Your task to perform on an android device: Clear the cart on newegg. Search for "razer blade" on newegg, select the first entry, and add it to the cart. Image 0: 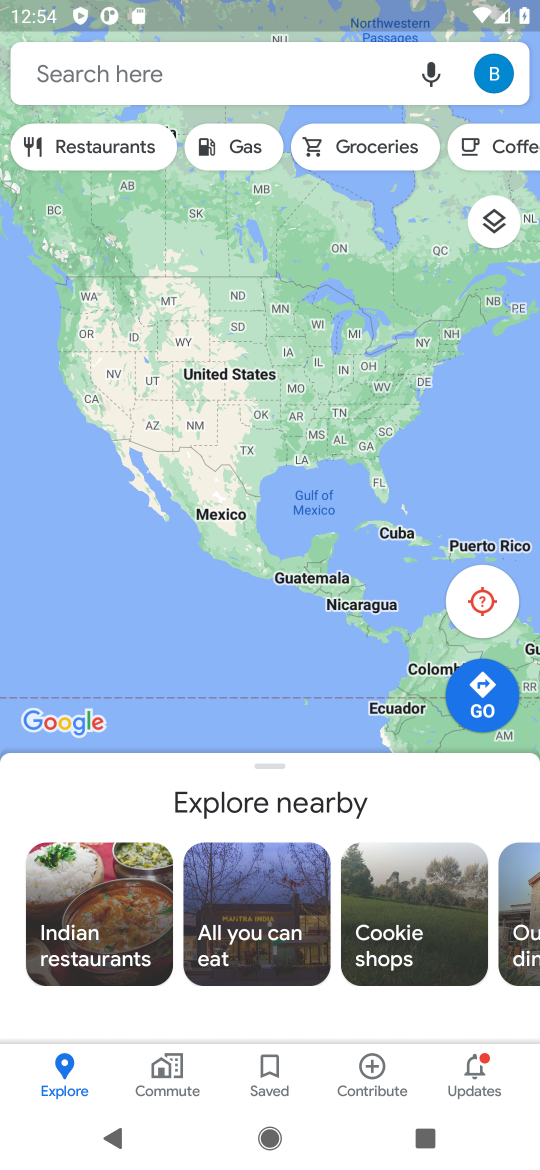
Step 0: press home button
Your task to perform on an android device: Clear the cart on newegg. Search for "razer blade" on newegg, select the first entry, and add it to the cart. Image 1: 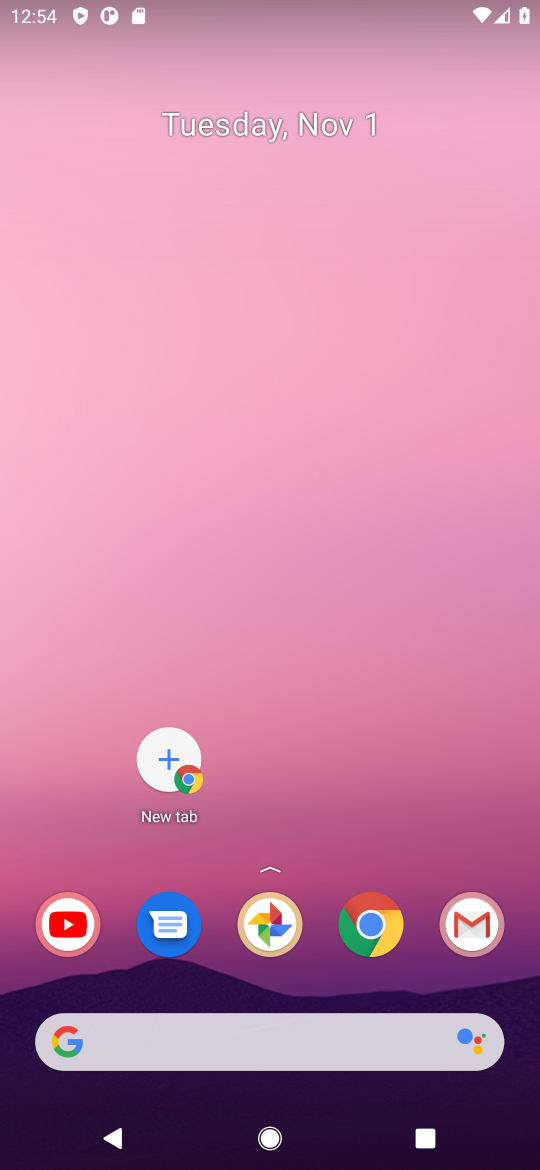
Step 1: click (376, 932)
Your task to perform on an android device: Clear the cart on newegg. Search for "razer blade" on newegg, select the first entry, and add it to the cart. Image 2: 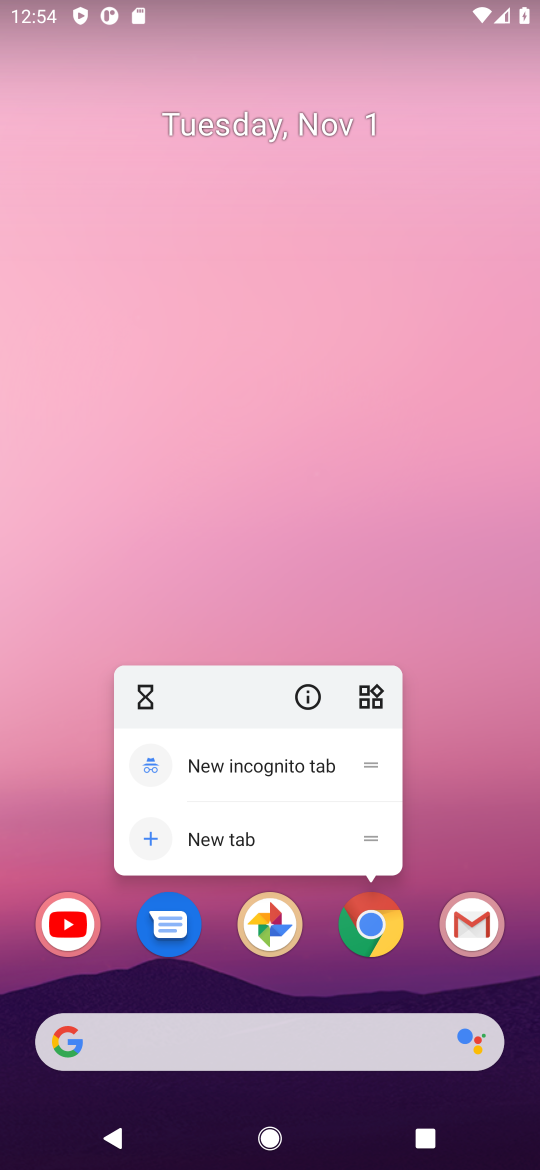
Step 2: click (379, 929)
Your task to perform on an android device: Clear the cart on newegg. Search for "razer blade" on newegg, select the first entry, and add it to the cart. Image 3: 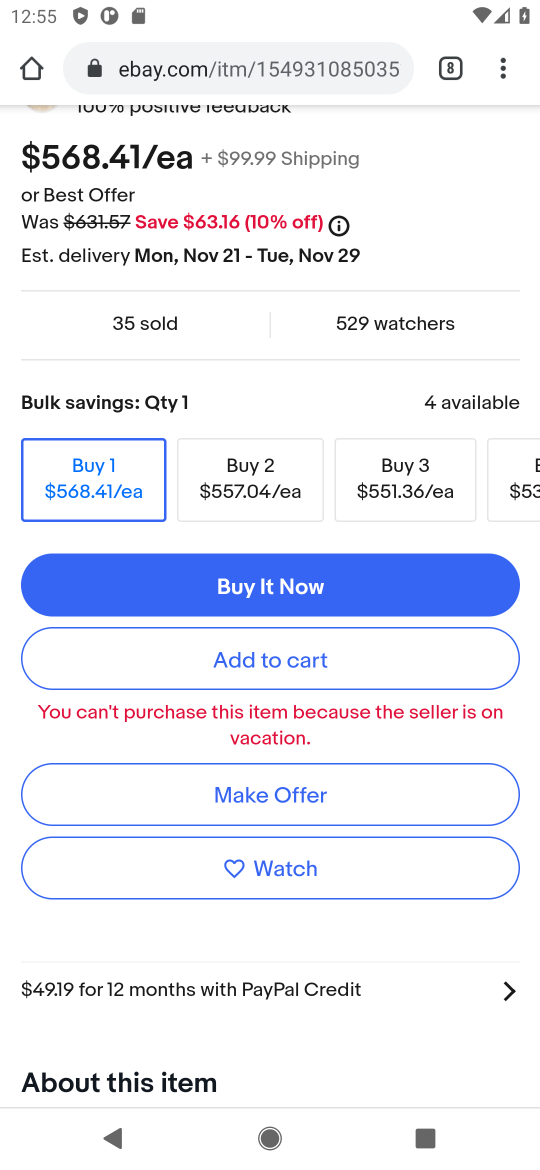
Step 3: click (200, 63)
Your task to perform on an android device: Clear the cart on newegg. Search for "razer blade" on newegg, select the first entry, and add it to the cart. Image 4: 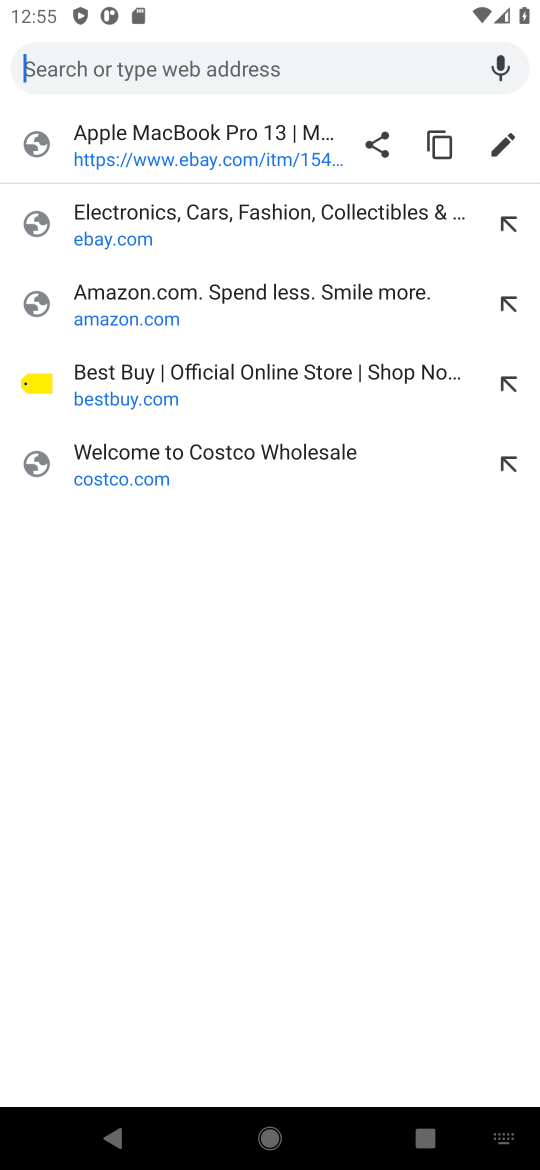
Step 4: type "newegg"
Your task to perform on an android device: Clear the cart on newegg. Search for "razer blade" on newegg, select the first entry, and add it to the cart. Image 5: 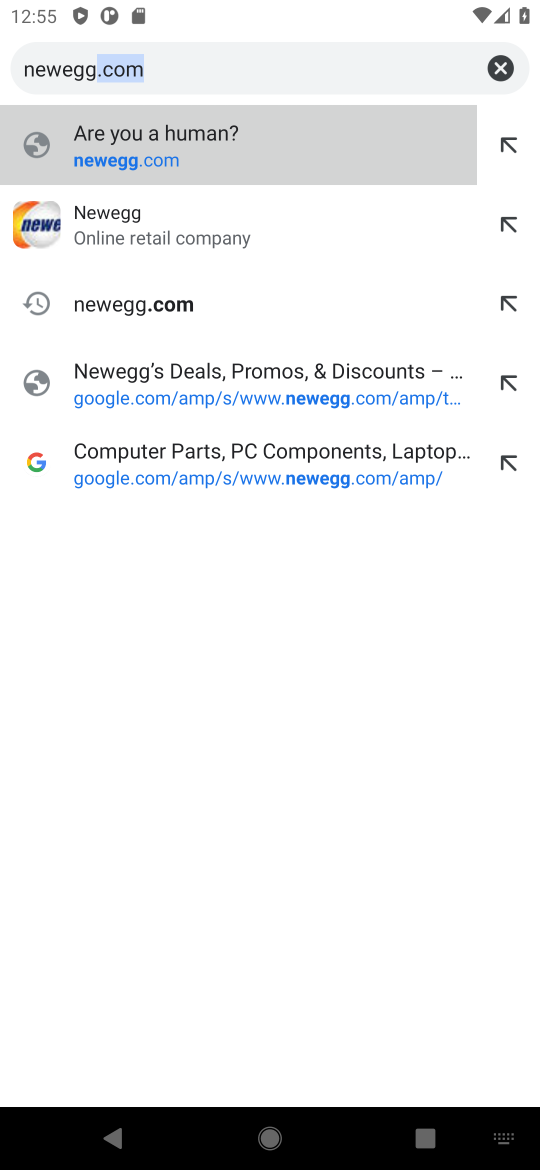
Step 5: click (131, 204)
Your task to perform on an android device: Clear the cart on newegg. Search for "razer blade" on newegg, select the first entry, and add it to the cart. Image 6: 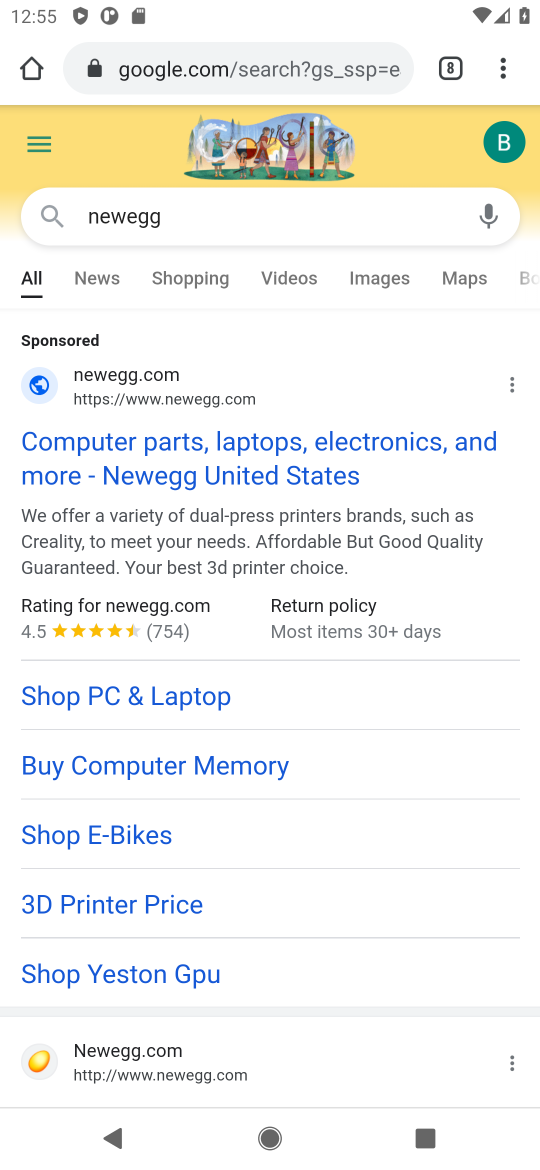
Step 6: drag from (262, 870) to (356, 303)
Your task to perform on an android device: Clear the cart on newegg. Search for "razer blade" on newegg, select the first entry, and add it to the cart. Image 7: 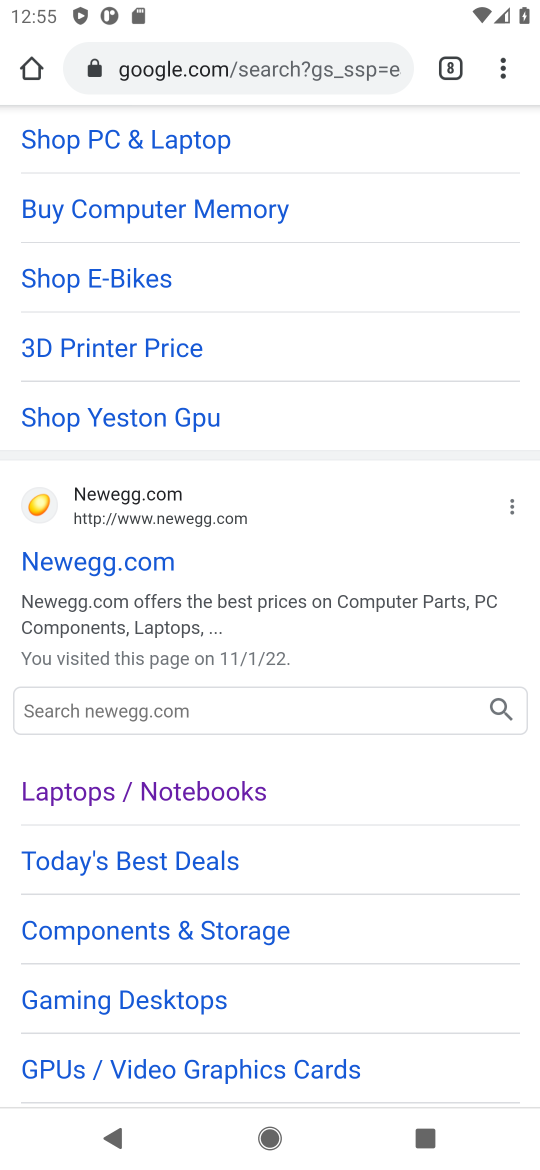
Step 7: click (89, 563)
Your task to perform on an android device: Clear the cart on newegg. Search for "razer blade" on newegg, select the first entry, and add it to the cart. Image 8: 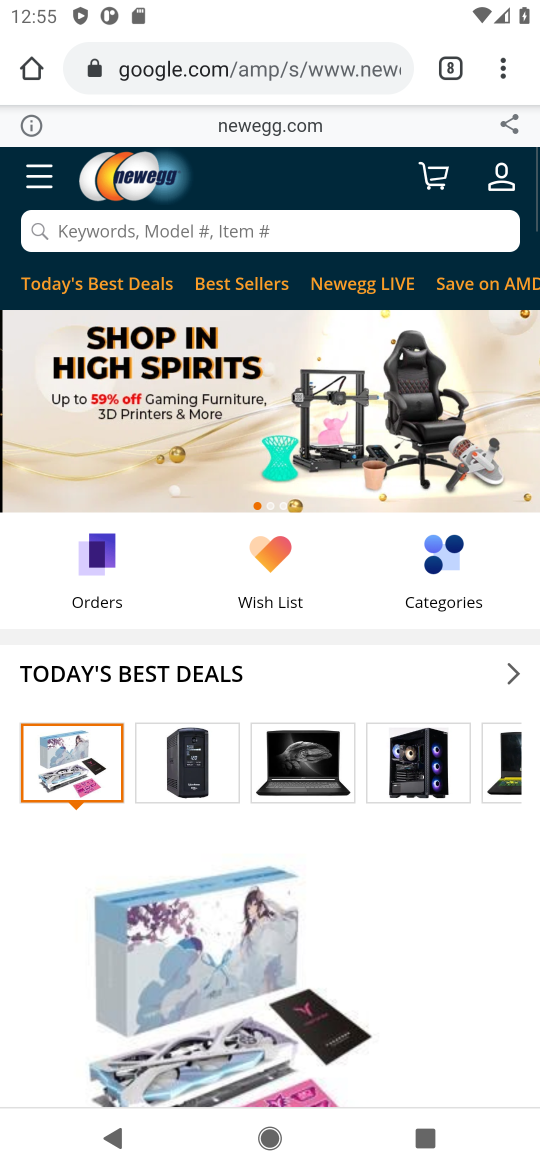
Step 8: click (133, 240)
Your task to perform on an android device: Clear the cart on newegg. Search for "razer blade" on newegg, select the first entry, and add it to the cart. Image 9: 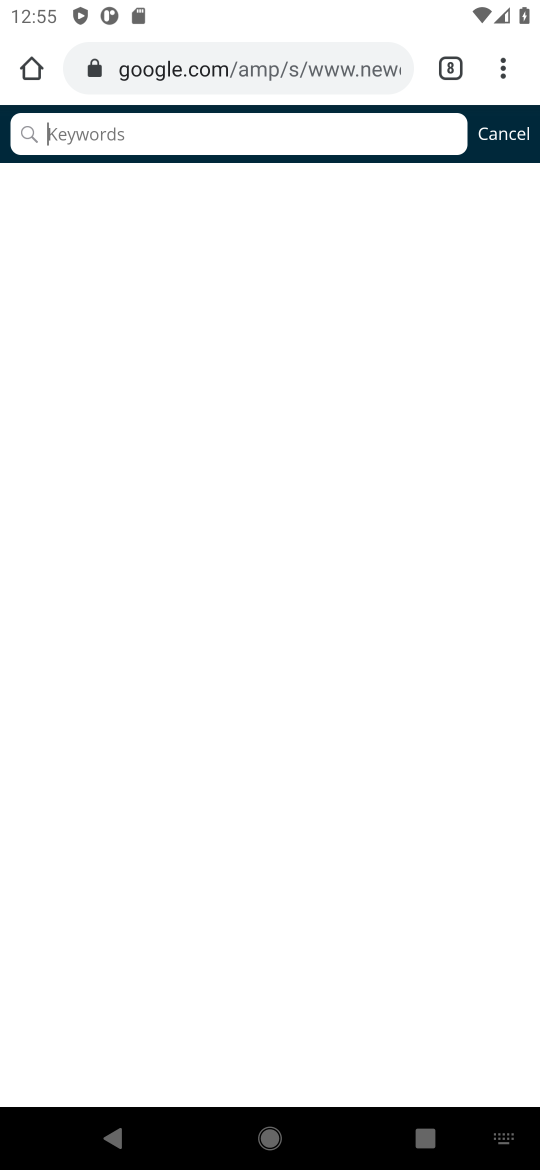
Step 9: type "razer blade"
Your task to perform on an android device: Clear the cart on newegg. Search for "razer blade" on newegg, select the first entry, and add it to the cart. Image 10: 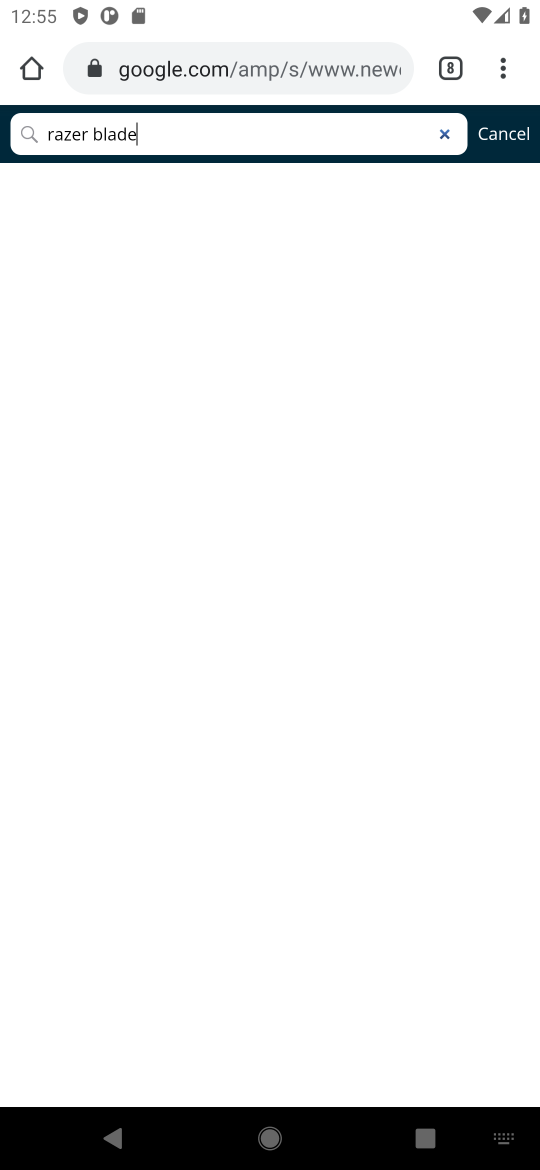
Step 10: type ""
Your task to perform on an android device: Clear the cart on newegg. Search for "razer blade" on newegg, select the first entry, and add it to the cart. Image 11: 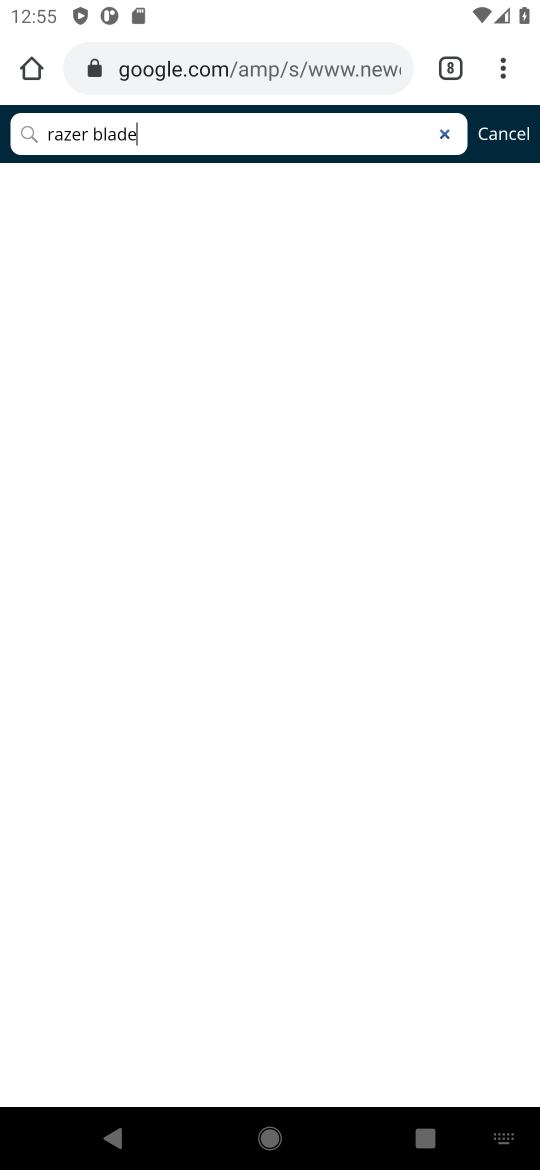
Step 11: type ""
Your task to perform on an android device: Clear the cart on newegg. Search for "razer blade" on newegg, select the first entry, and add it to the cart. Image 12: 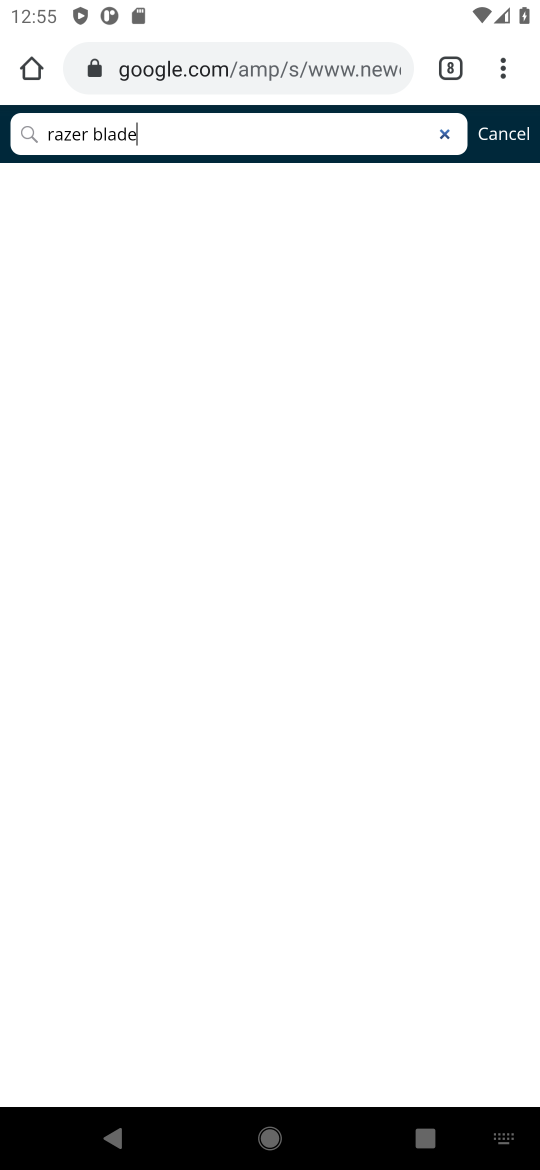
Step 12: click (440, 130)
Your task to perform on an android device: Clear the cart on newegg. Search for "razer blade" on newegg, select the first entry, and add it to the cart. Image 13: 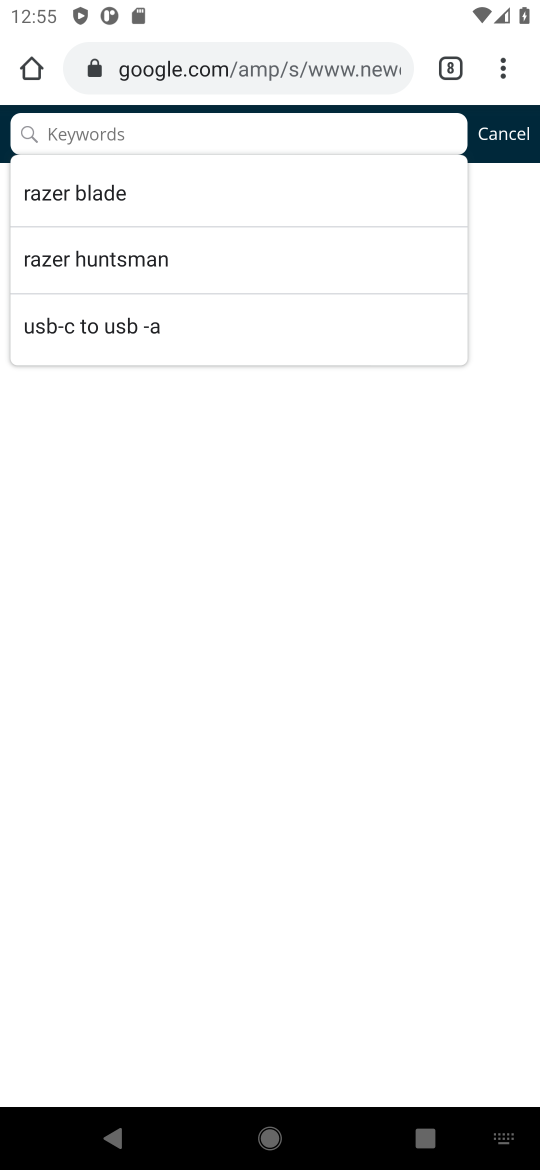
Step 13: click (70, 197)
Your task to perform on an android device: Clear the cart on newegg. Search for "razer blade" on newegg, select the first entry, and add it to the cart. Image 14: 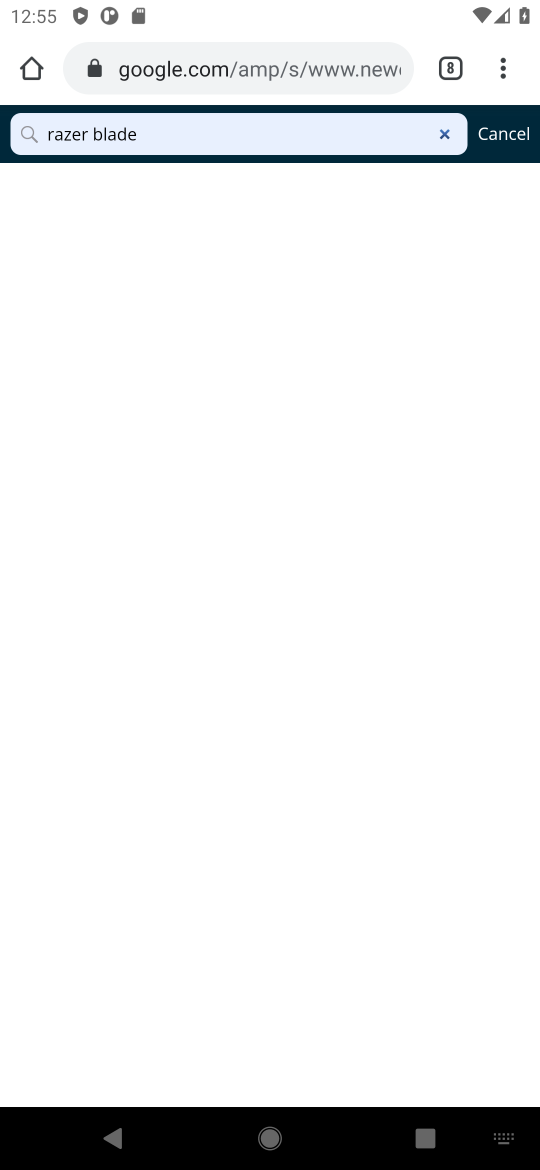
Step 14: click (448, 139)
Your task to perform on an android device: Clear the cart on newegg. Search for "razer blade" on newegg, select the first entry, and add it to the cart. Image 15: 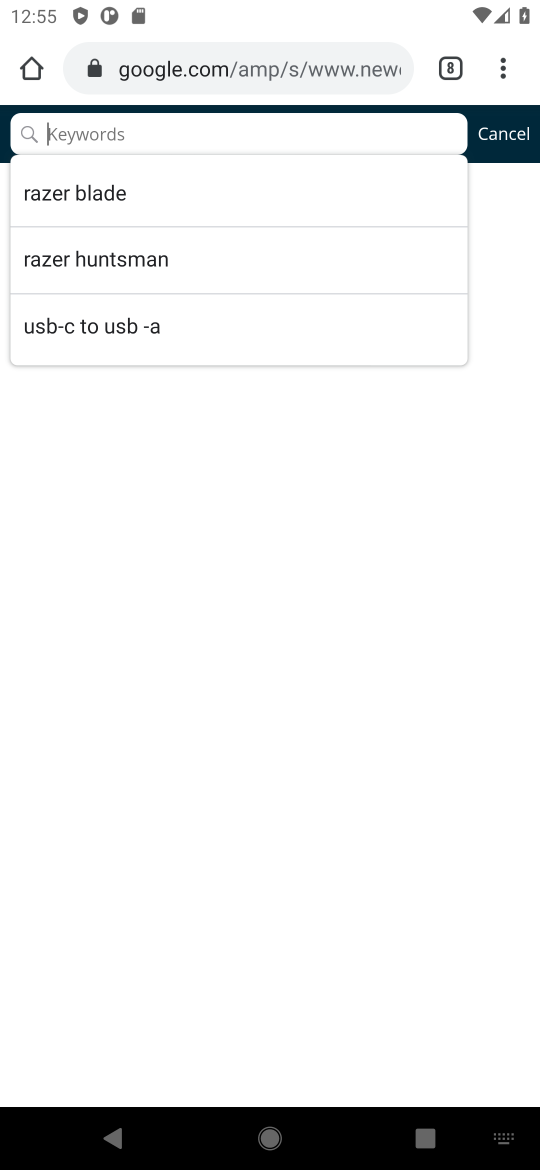
Step 15: press back button
Your task to perform on an android device: Clear the cart on newegg. Search for "razer blade" on newegg, select the first entry, and add it to the cart. Image 16: 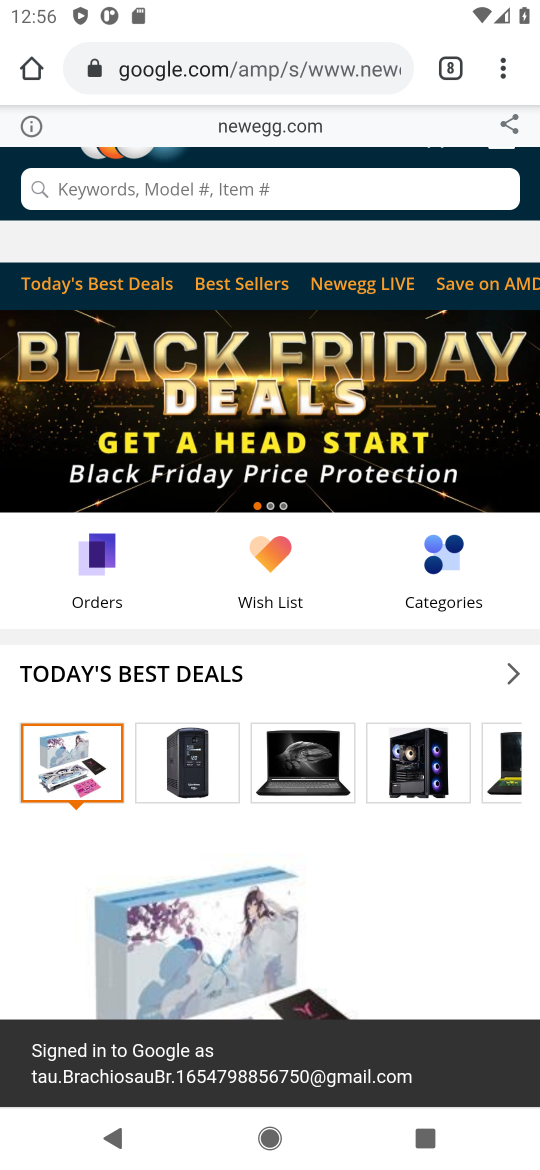
Step 16: drag from (171, 643) to (187, 523)
Your task to perform on an android device: Clear the cart on newegg. Search for "razer blade" on newegg, select the first entry, and add it to the cart. Image 17: 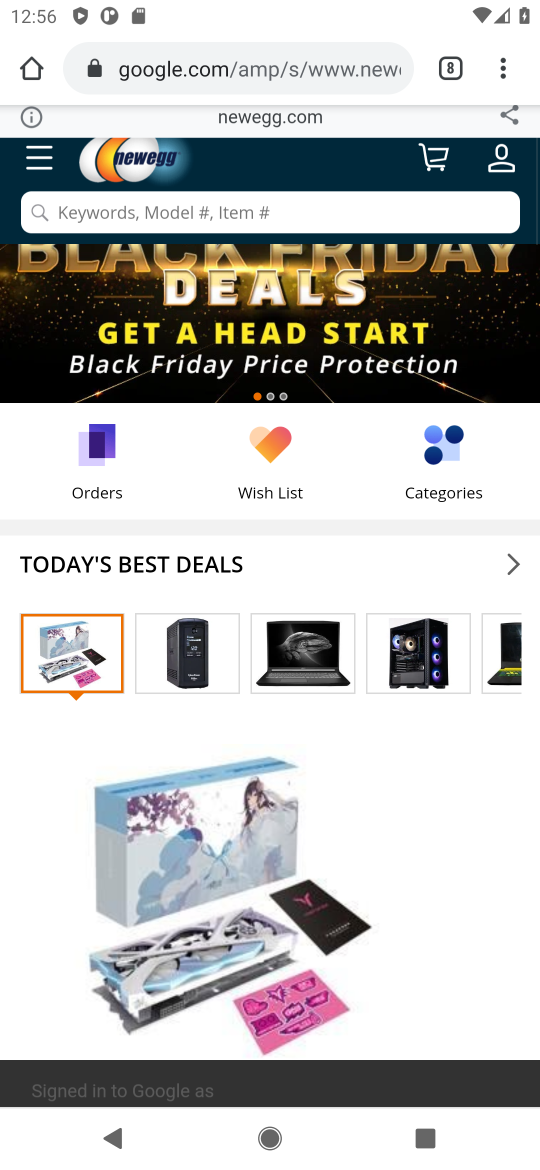
Step 17: click (176, 221)
Your task to perform on an android device: Clear the cart on newegg. Search for "razer blade" on newegg, select the first entry, and add it to the cart. Image 18: 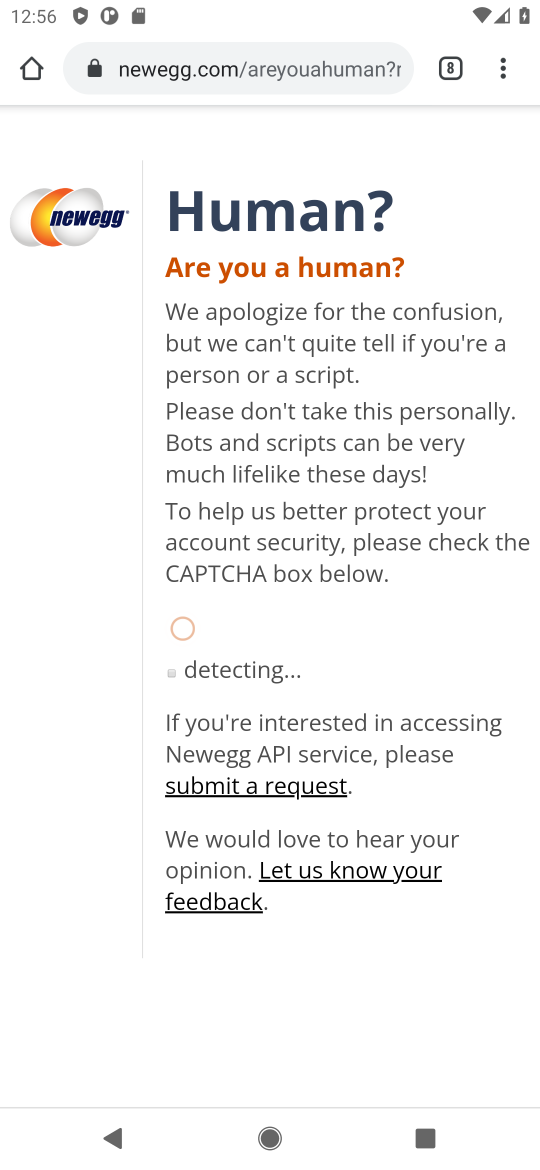
Step 18: press back button
Your task to perform on an android device: Clear the cart on newegg. Search for "razer blade" on newegg, select the first entry, and add it to the cart. Image 19: 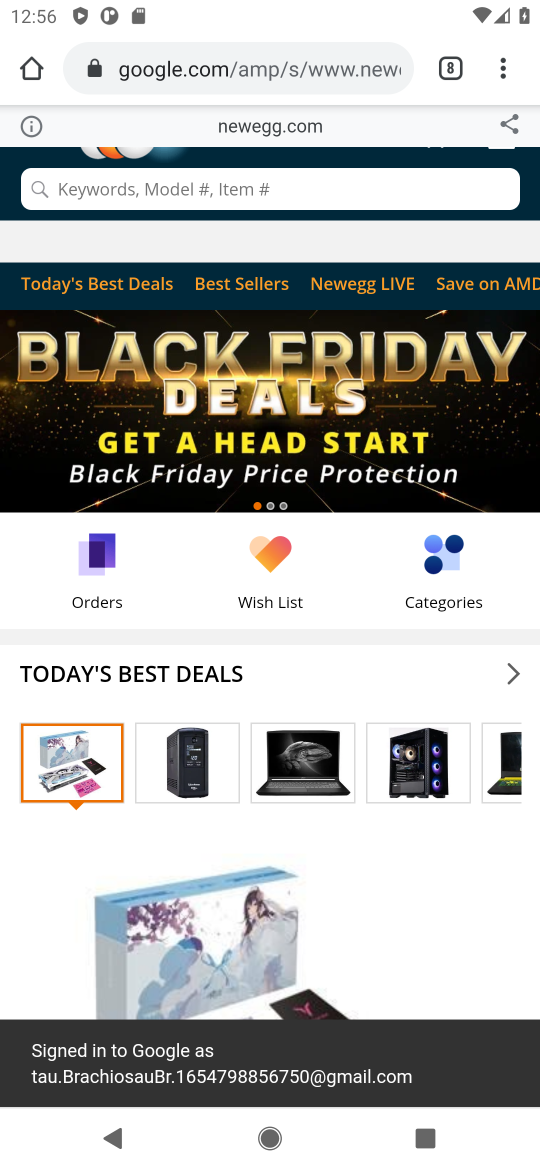
Step 19: drag from (295, 798) to (290, 320)
Your task to perform on an android device: Clear the cart on newegg. Search for "razer blade" on newegg, select the first entry, and add it to the cart. Image 20: 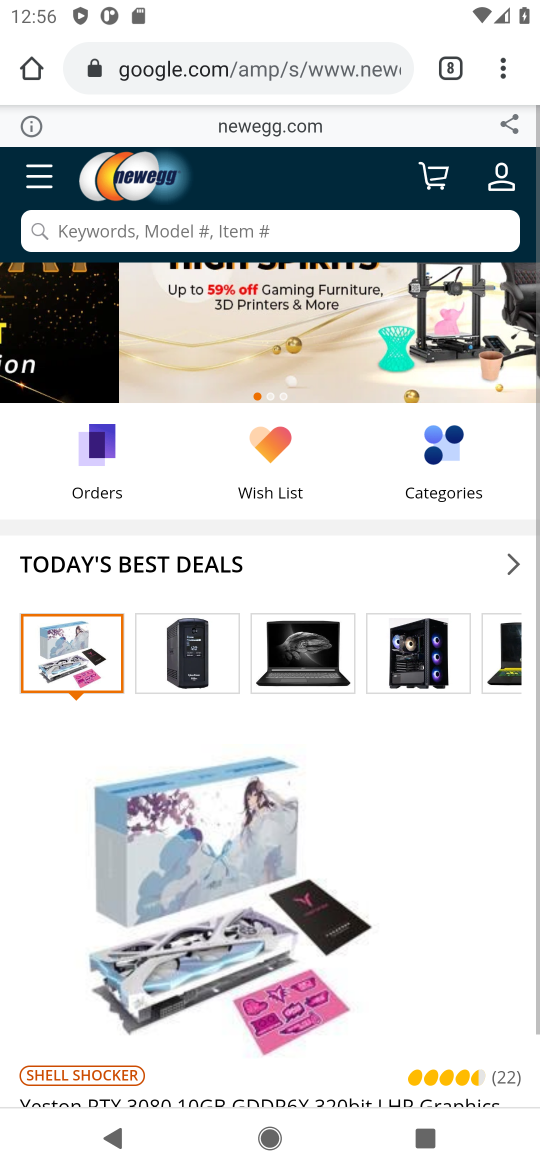
Step 20: drag from (291, 896) to (296, 606)
Your task to perform on an android device: Clear the cart on newegg. Search for "razer blade" on newegg, select the first entry, and add it to the cart. Image 21: 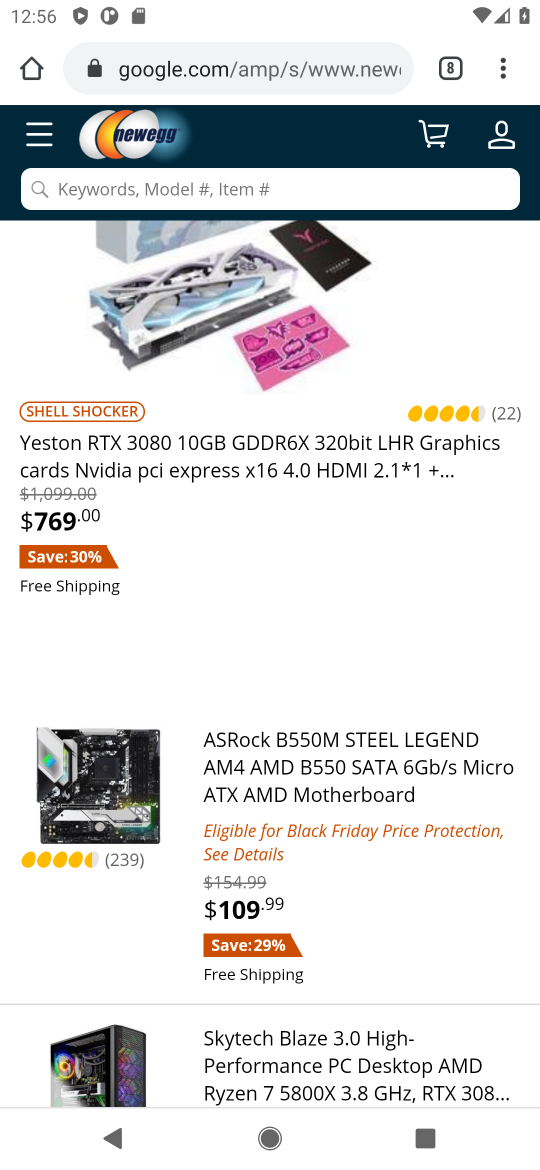
Step 21: drag from (243, 964) to (240, 581)
Your task to perform on an android device: Clear the cart on newegg. Search for "razer blade" on newegg, select the first entry, and add it to the cart. Image 22: 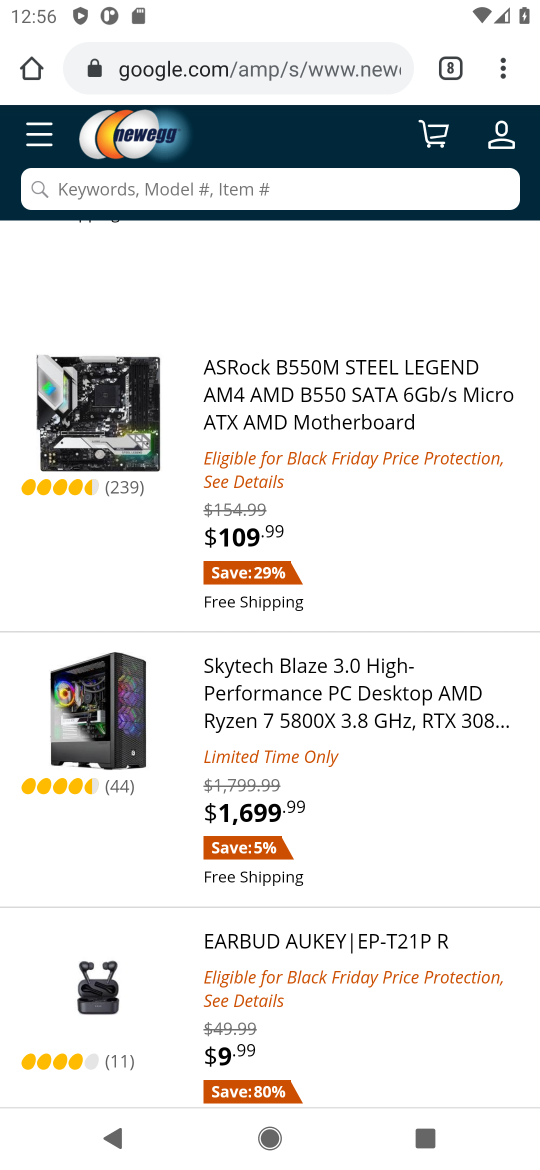
Step 22: drag from (225, 1001) to (361, 261)
Your task to perform on an android device: Clear the cart on newegg. Search for "razer blade" on newegg, select the first entry, and add it to the cart. Image 23: 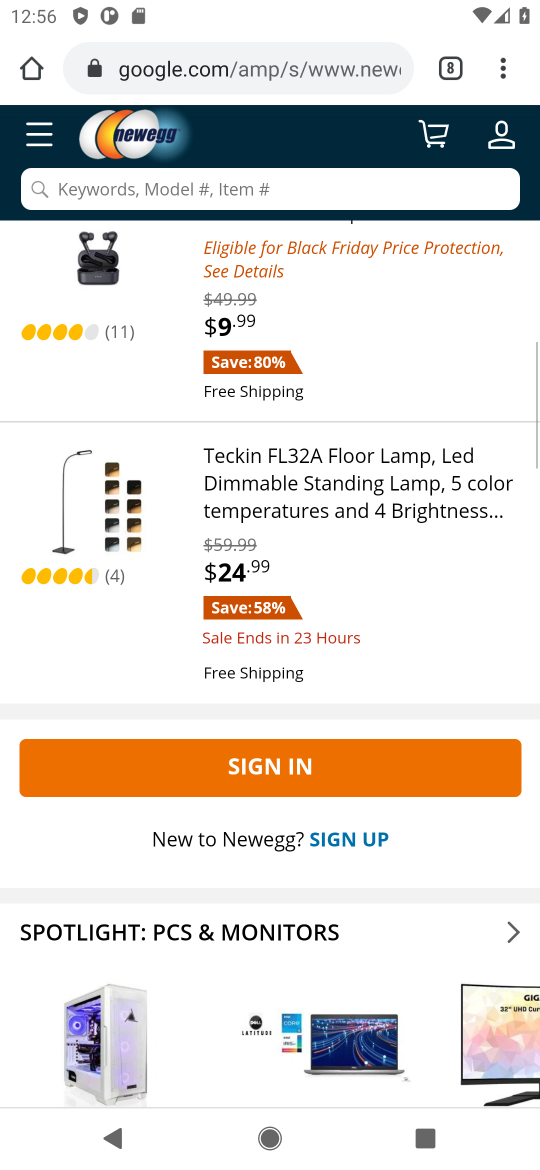
Step 23: drag from (253, 1019) to (276, 470)
Your task to perform on an android device: Clear the cart on newegg. Search for "razer blade" on newegg, select the first entry, and add it to the cart. Image 24: 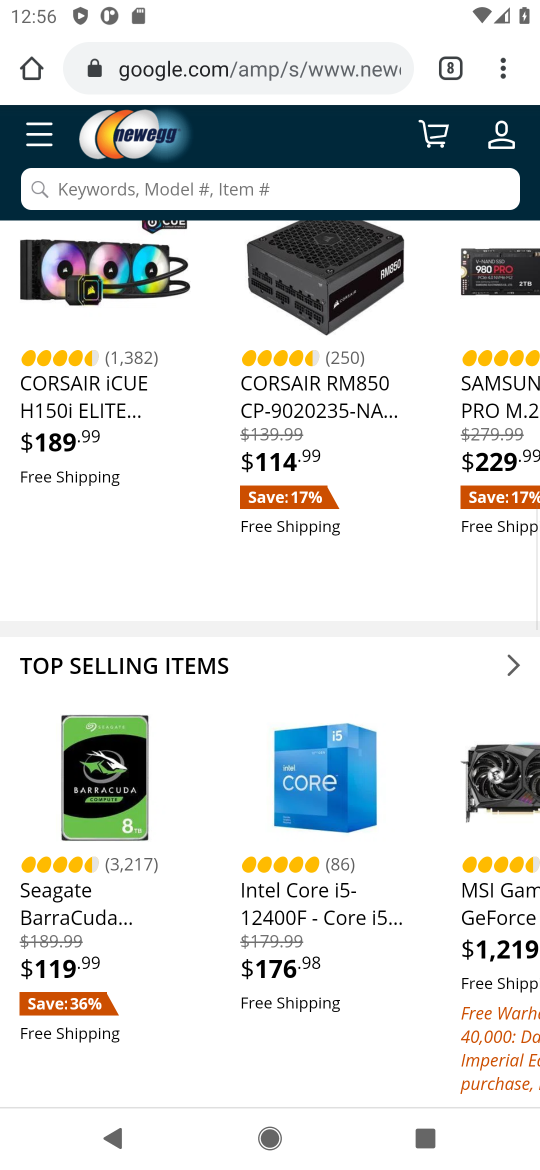
Step 24: drag from (217, 982) to (217, 486)
Your task to perform on an android device: Clear the cart on newegg. Search for "razer blade" on newegg, select the first entry, and add it to the cart. Image 25: 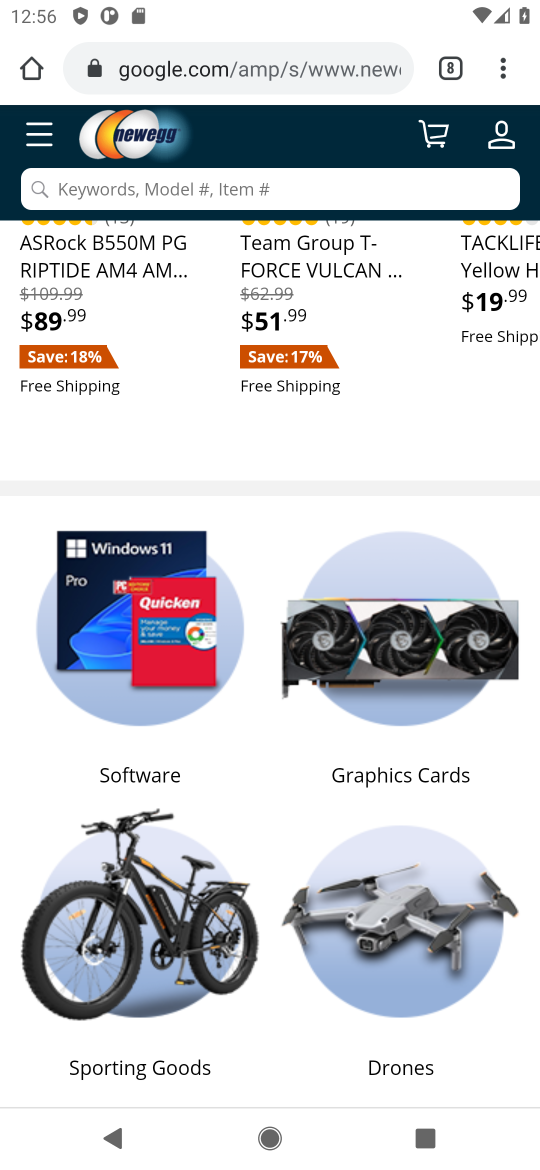
Step 25: drag from (241, 822) to (269, 472)
Your task to perform on an android device: Clear the cart on newegg. Search for "razer blade" on newegg, select the first entry, and add it to the cart. Image 26: 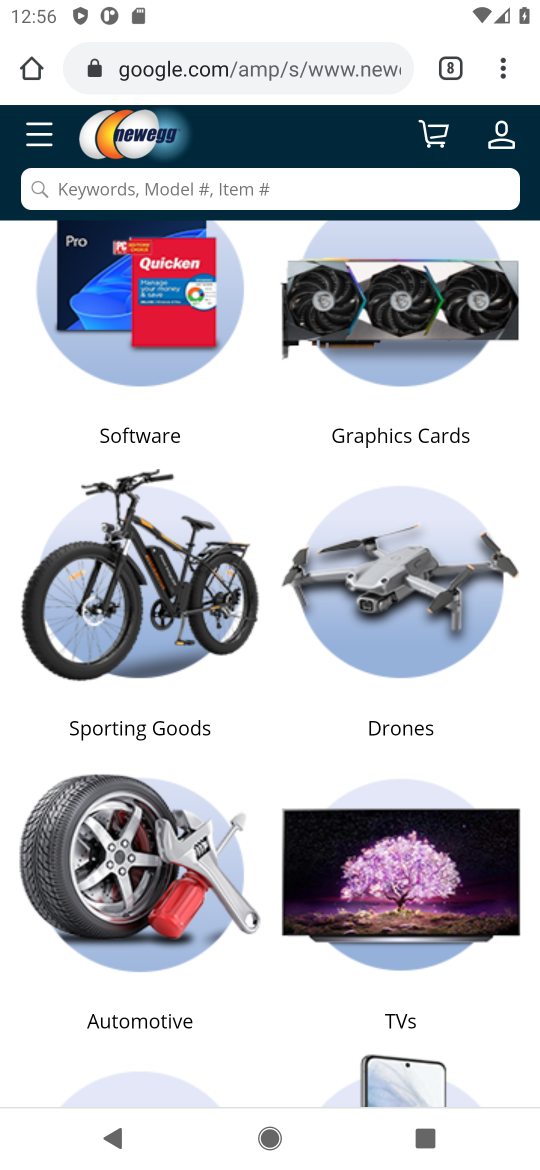
Step 26: click (294, 989)
Your task to perform on an android device: Clear the cart on newegg. Search for "razer blade" on newegg, select the first entry, and add it to the cart. Image 27: 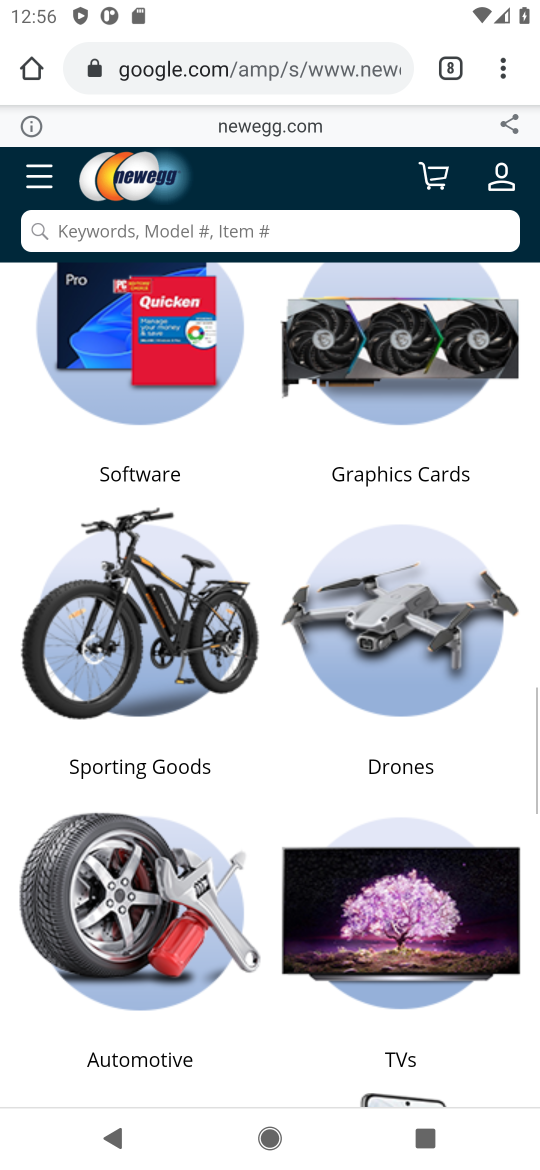
Step 27: drag from (365, 400) to (434, 1055)
Your task to perform on an android device: Clear the cart on newegg. Search for "razer blade" on newegg, select the first entry, and add it to the cart. Image 28: 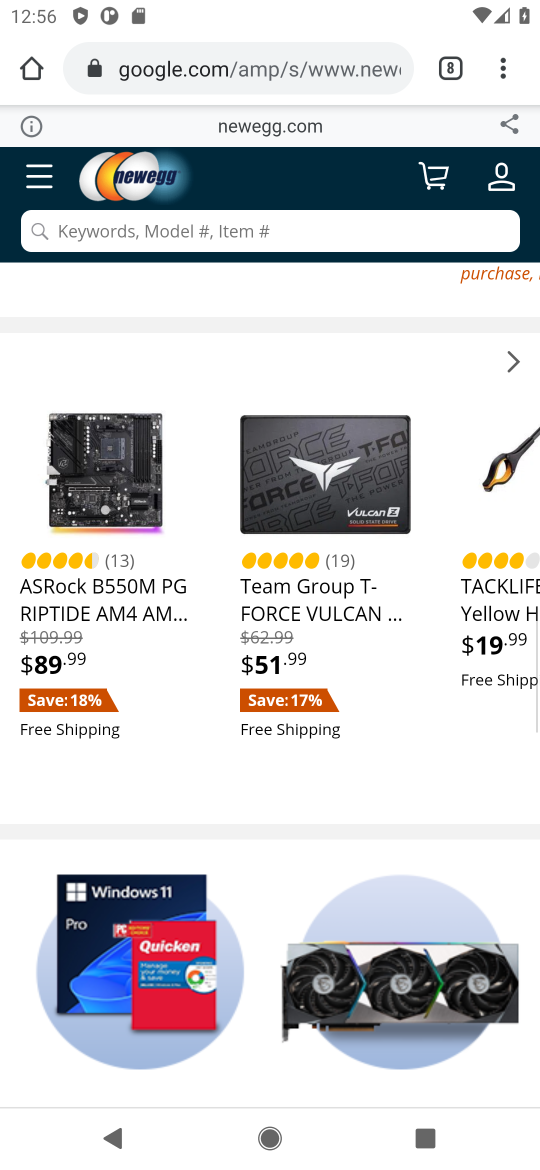
Step 28: drag from (349, 409) to (342, 929)
Your task to perform on an android device: Clear the cart on newegg. Search for "razer blade" on newegg, select the first entry, and add it to the cart. Image 29: 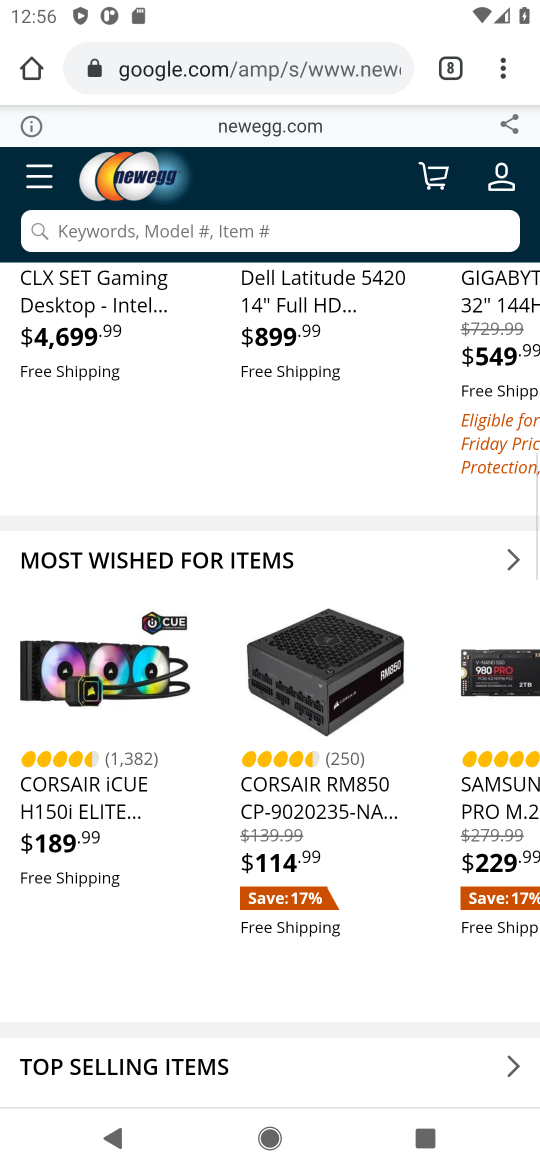
Step 29: drag from (247, 531) to (179, 897)
Your task to perform on an android device: Clear the cart on newegg. Search for "razer blade" on newegg, select the first entry, and add it to the cart. Image 30: 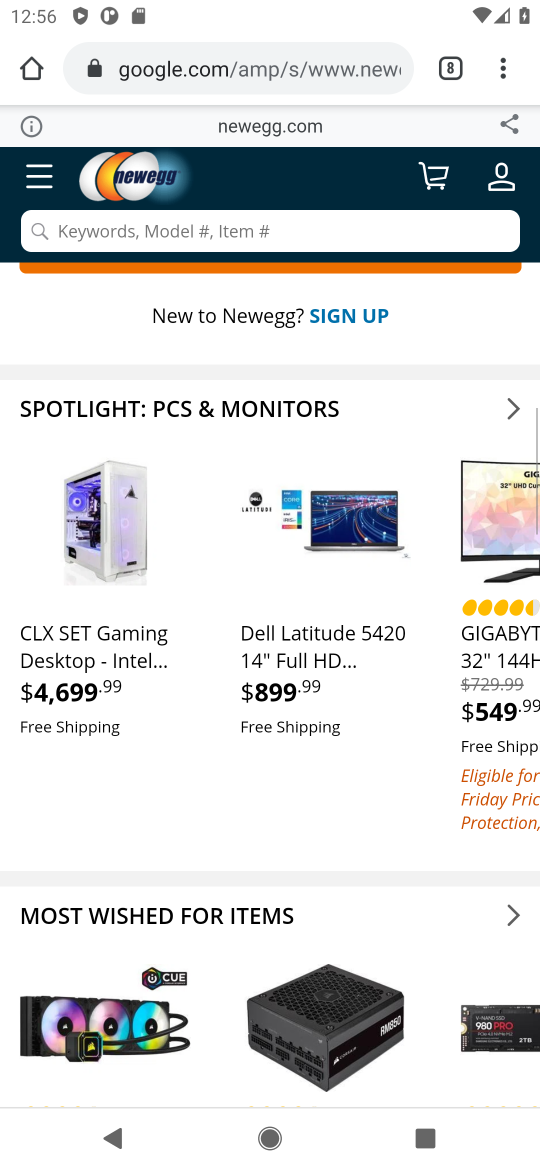
Step 30: drag from (276, 593) to (122, 916)
Your task to perform on an android device: Clear the cart on newegg. Search for "razer blade" on newegg, select the first entry, and add it to the cart. Image 31: 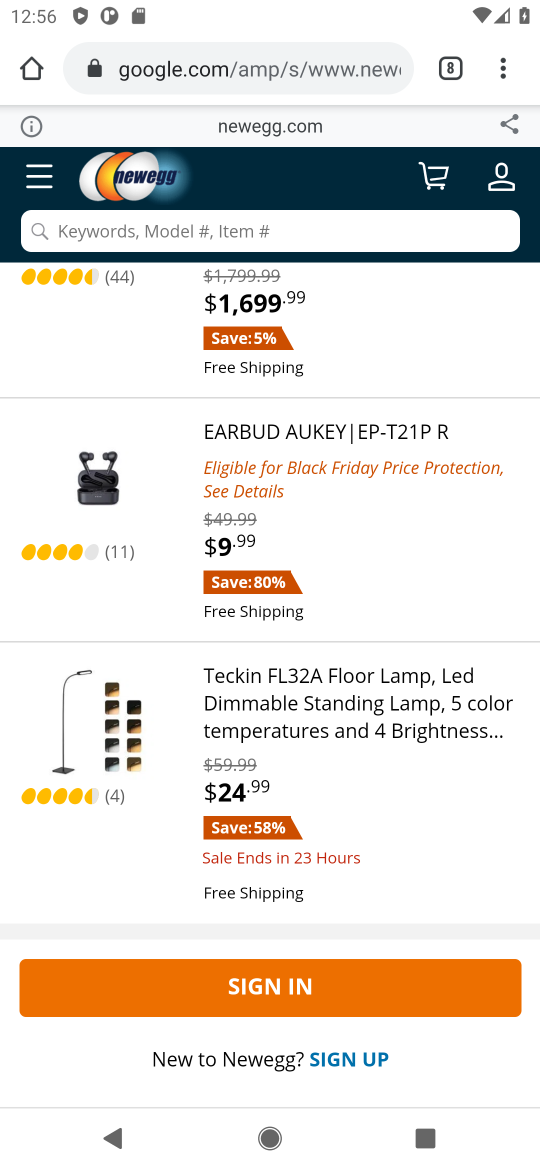
Step 31: drag from (324, 586) to (101, 866)
Your task to perform on an android device: Clear the cart on newegg. Search for "razer blade" on newegg, select the first entry, and add it to the cart. Image 32: 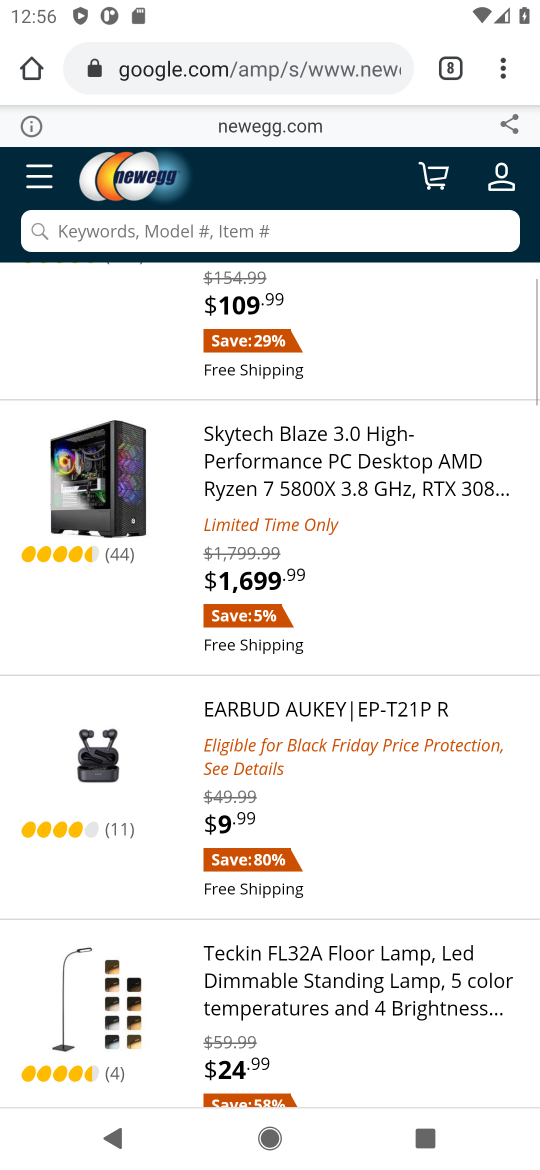
Step 32: drag from (284, 551) to (14, 855)
Your task to perform on an android device: Clear the cart on newegg. Search for "razer blade" on newegg, select the first entry, and add it to the cart. Image 33: 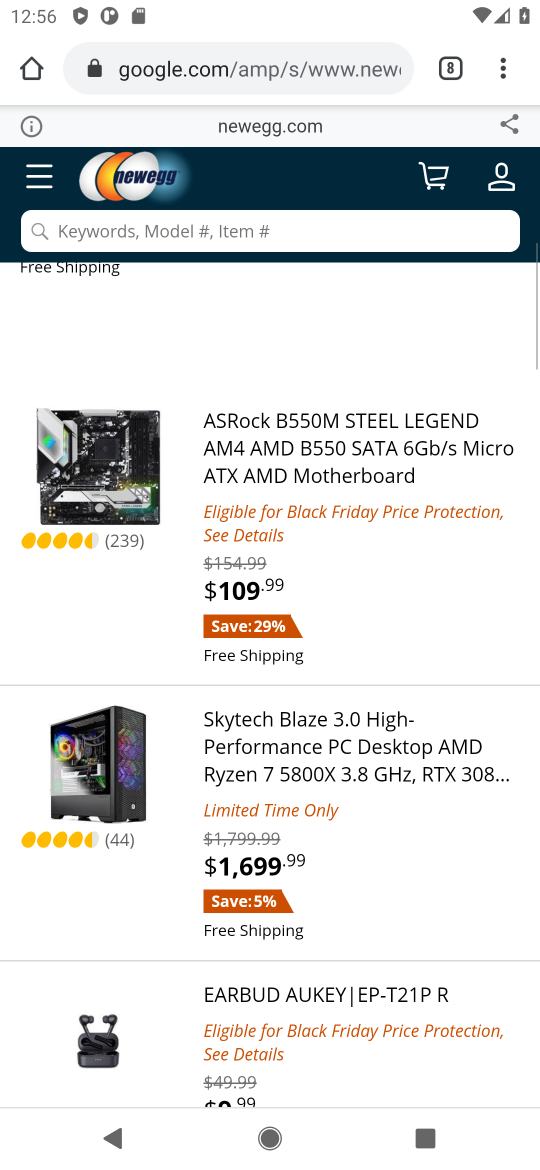
Step 33: drag from (197, 417) to (53, 626)
Your task to perform on an android device: Clear the cart on newegg. Search for "razer blade" on newegg, select the first entry, and add it to the cart. Image 34: 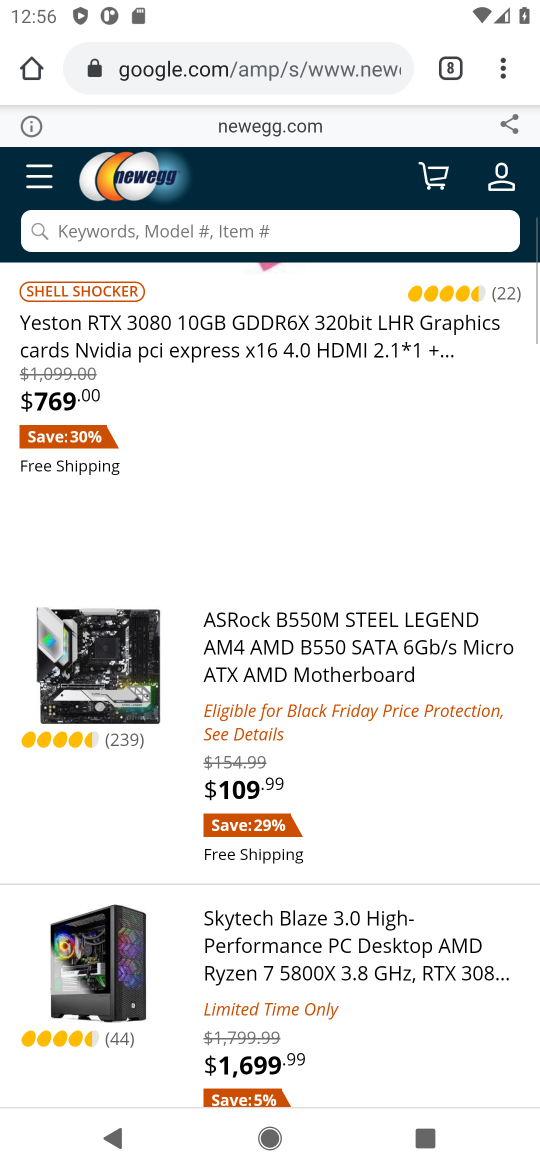
Step 34: drag from (323, 733) to (103, 892)
Your task to perform on an android device: Clear the cart on newegg. Search for "razer blade" on newegg, select the first entry, and add it to the cart. Image 35: 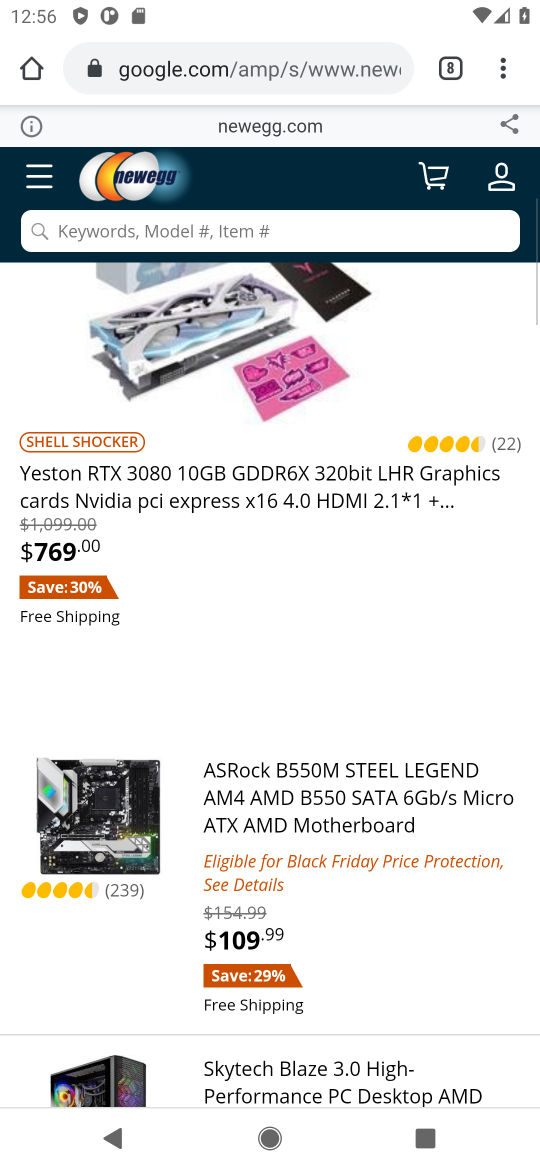
Step 35: drag from (230, 610) to (35, 3)
Your task to perform on an android device: Clear the cart on newegg. Search for "razer blade" on newegg, select the first entry, and add it to the cart. Image 36: 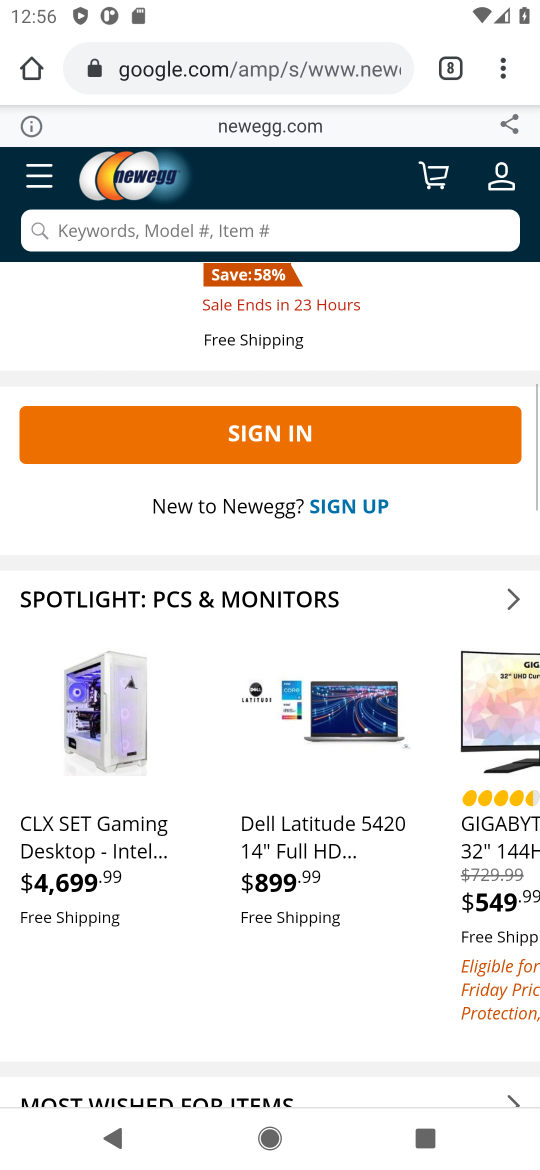
Step 36: drag from (291, 784) to (106, 945)
Your task to perform on an android device: Clear the cart on newegg. Search for "razer blade" on newegg, select the first entry, and add it to the cart. Image 37: 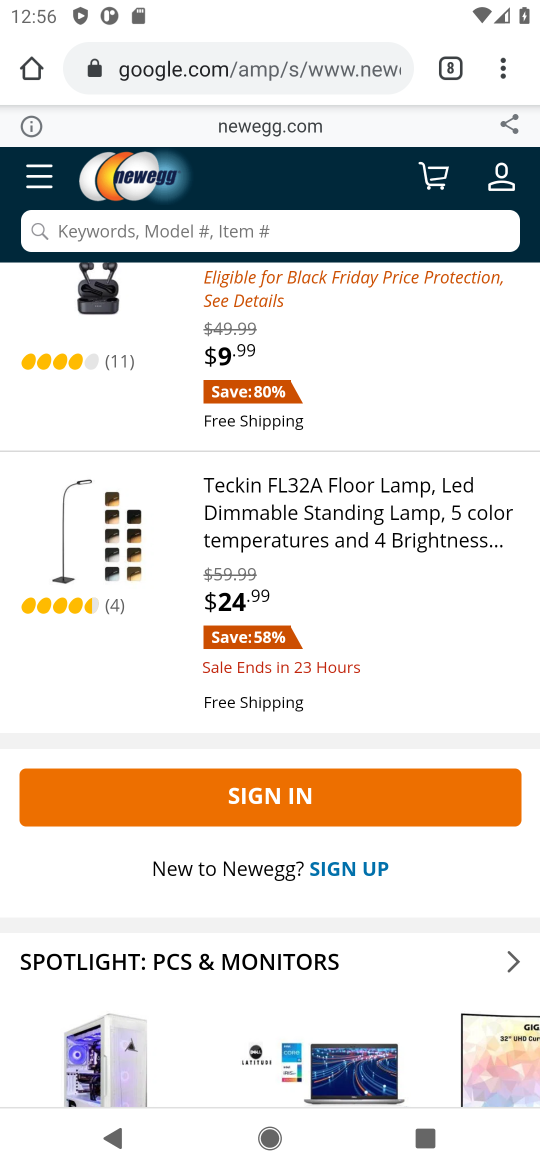
Step 37: drag from (305, 475) to (22, 697)
Your task to perform on an android device: Clear the cart on newegg. Search for "razer blade" on newegg, select the first entry, and add it to the cart. Image 38: 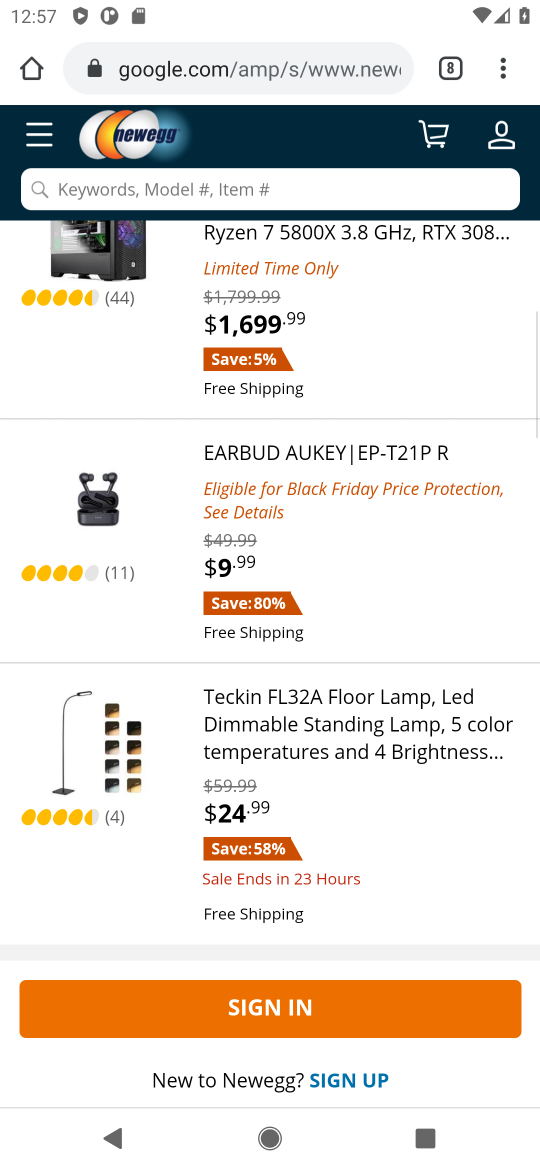
Step 38: drag from (283, 513) to (60, 876)
Your task to perform on an android device: Clear the cart on newegg. Search for "razer blade" on newegg, select the first entry, and add it to the cart. Image 39: 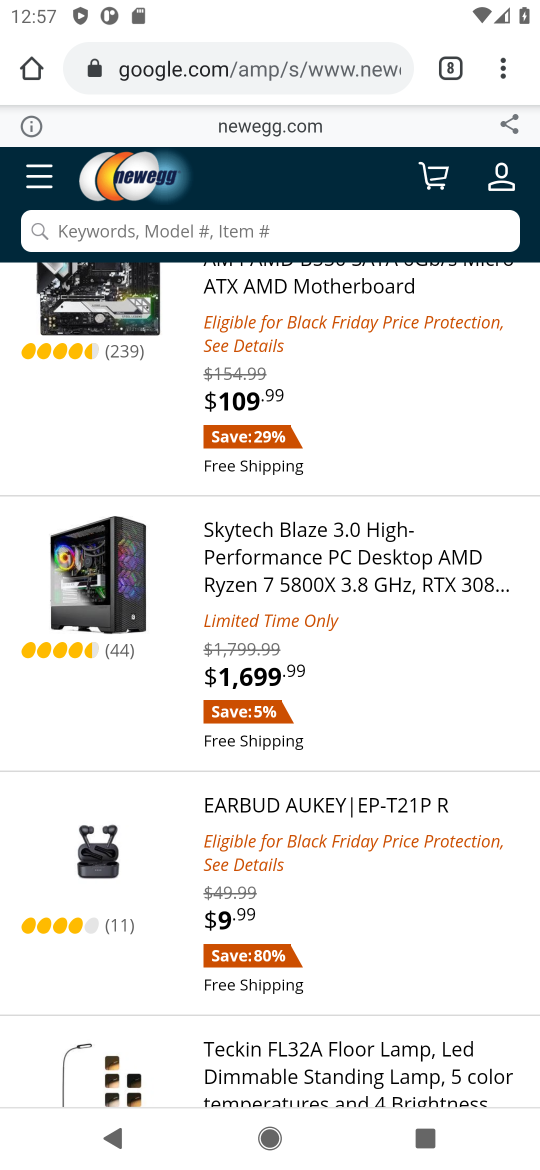
Step 39: click (359, 223)
Your task to perform on an android device: Clear the cart on newegg. Search for "razer blade" on newegg, select the first entry, and add it to the cart. Image 40: 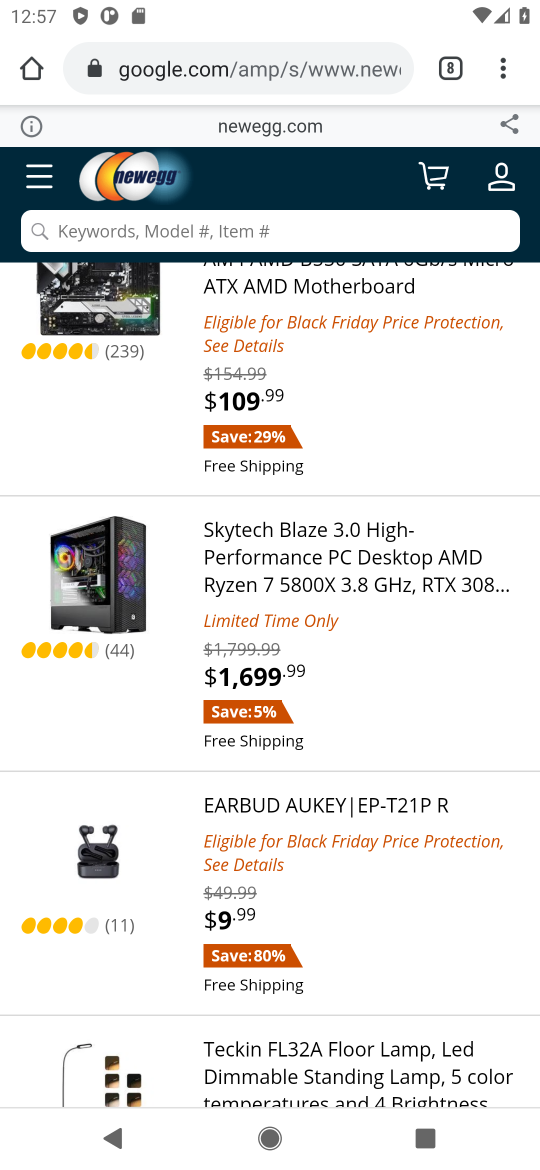
Step 40: click (47, 231)
Your task to perform on an android device: Clear the cart on newegg. Search for "razer blade" on newegg, select the first entry, and add it to the cart. Image 41: 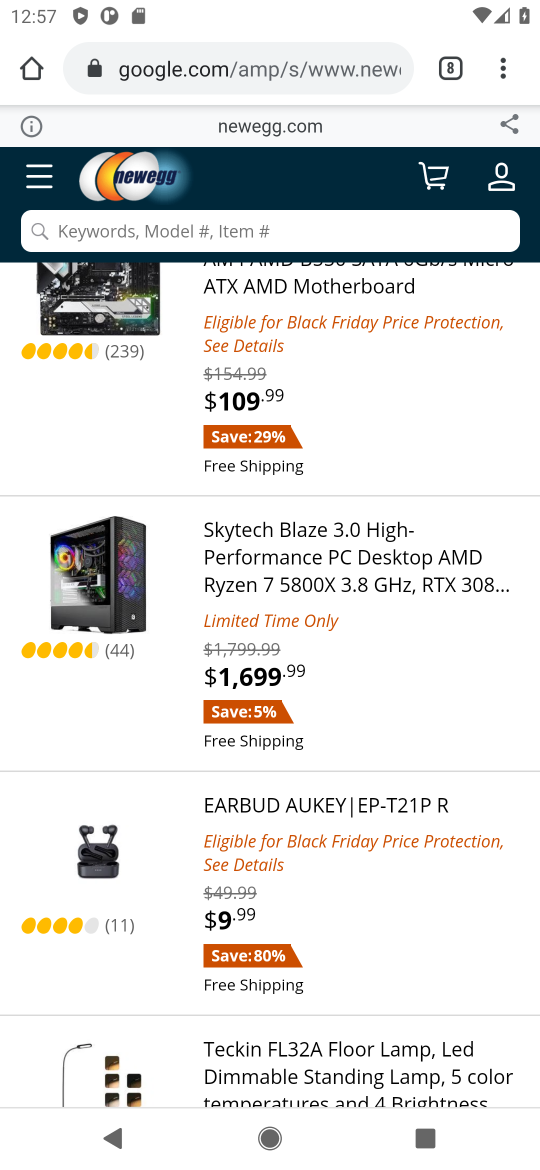
Step 41: click (46, 230)
Your task to perform on an android device: Clear the cart on newegg. Search for "razer blade" on newegg, select the first entry, and add it to the cart. Image 42: 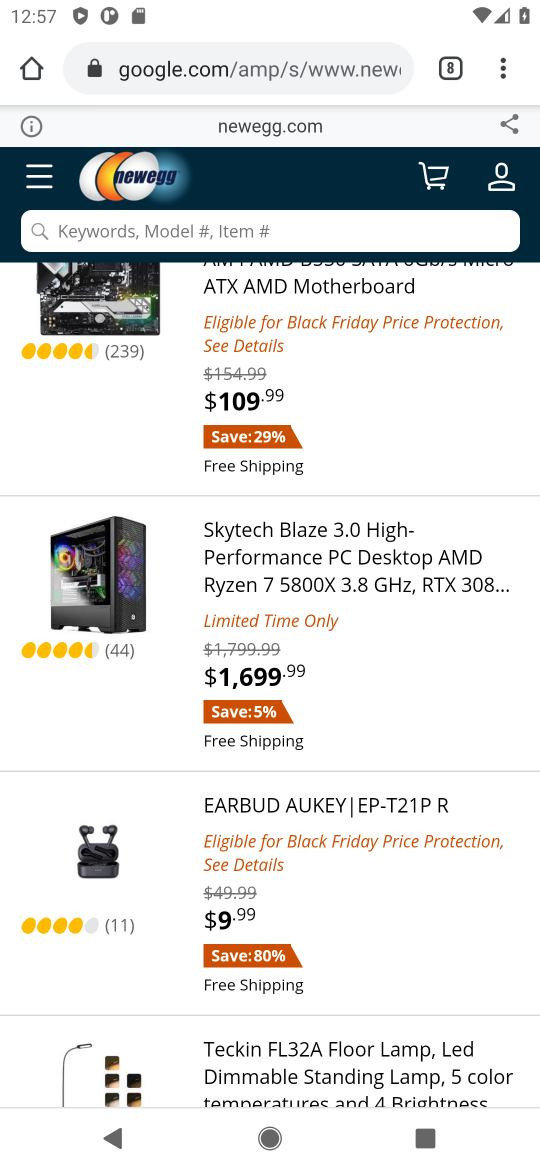
Step 42: click (47, 227)
Your task to perform on an android device: Clear the cart on newegg. Search for "razer blade" on newegg, select the first entry, and add it to the cart. Image 43: 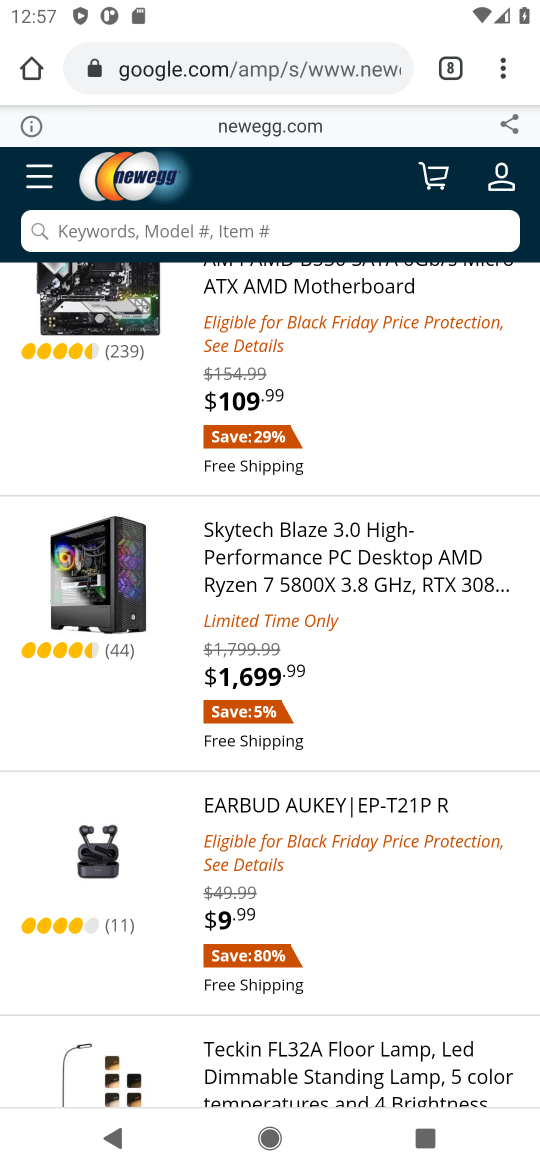
Step 43: click (47, 227)
Your task to perform on an android device: Clear the cart on newegg. Search for "razer blade" on newegg, select the first entry, and add it to the cart. Image 44: 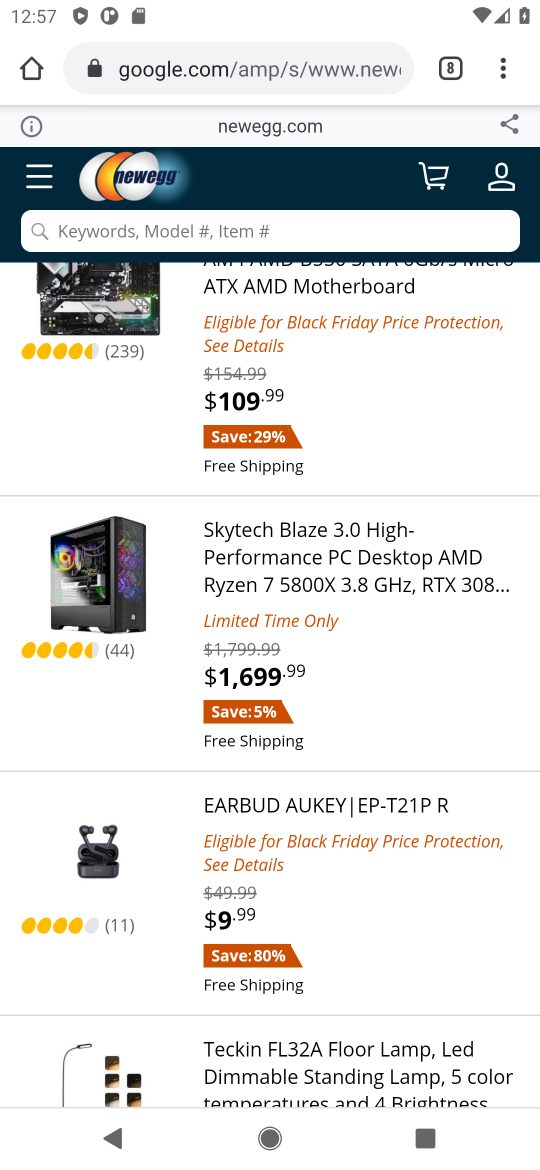
Step 44: click (48, 226)
Your task to perform on an android device: Clear the cart on newegg. Search for "razer blade" on newegg, select the first entry, and add it to the cart. Image 45: 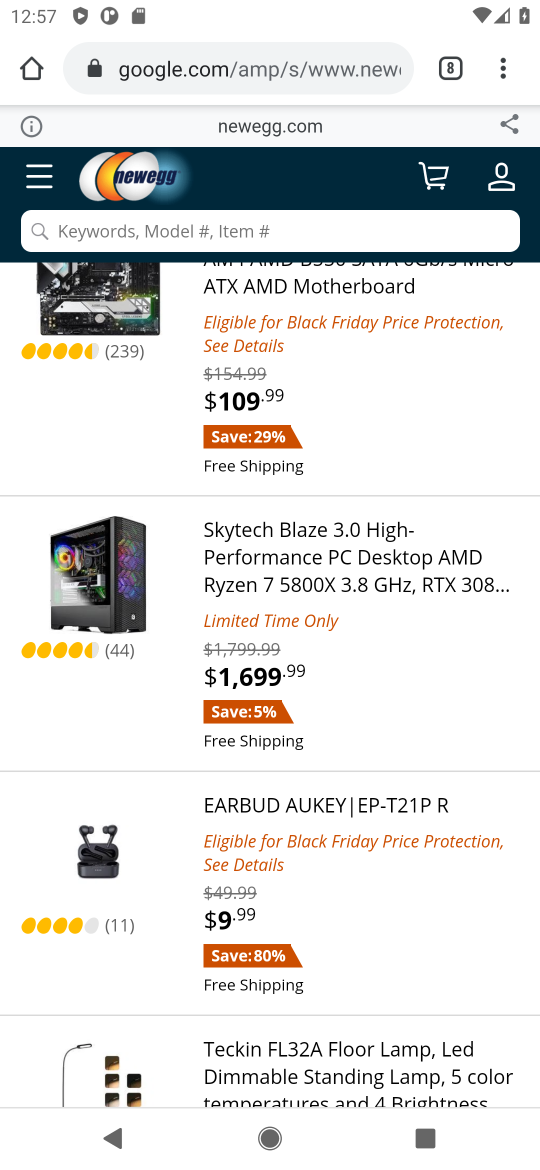
Step 45: drag from (286, 702) to (383, 162)
Your task to perform on an android device: Clear the cart on newegg. Search for "razer blade" on newegg, select the first entry, and add it to the cart. Image 46: 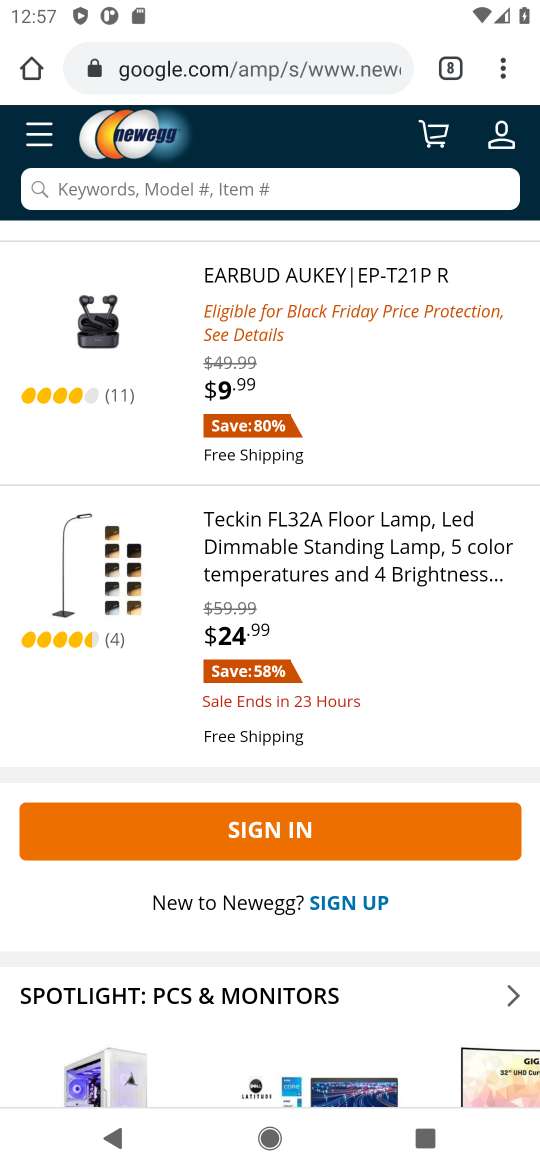
Step 46: click (156, 180)
Your task to perform on an android device: Clear the cart on newegg. Search for "razer blade" on newegg, select the first entry, and add it to the cart. Image 47: 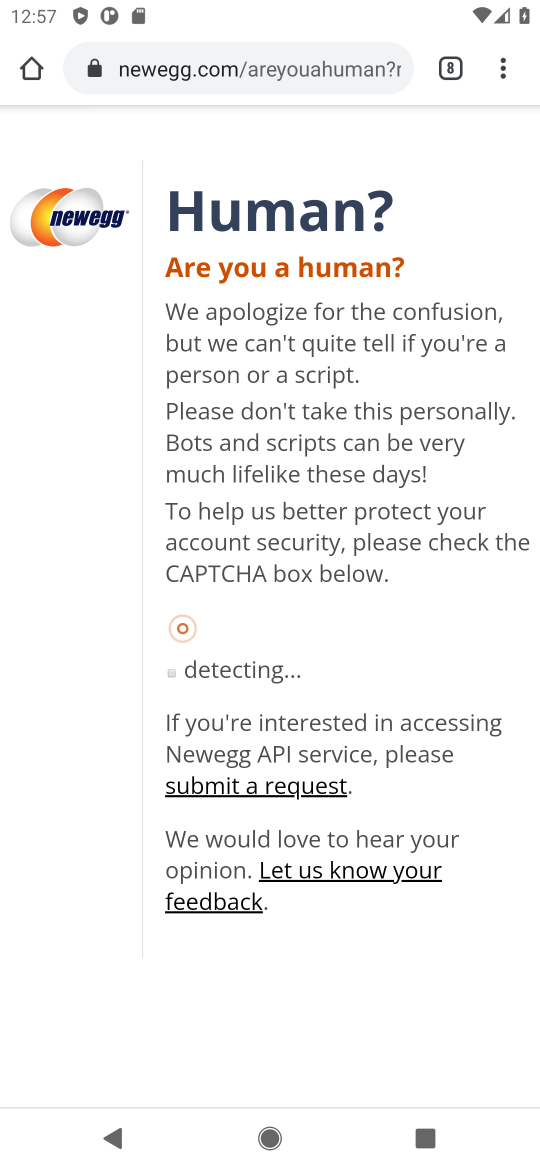
Step 47: task complete